Your task to perform on an android device: Search for sushi restaurants on Maps Image 0: 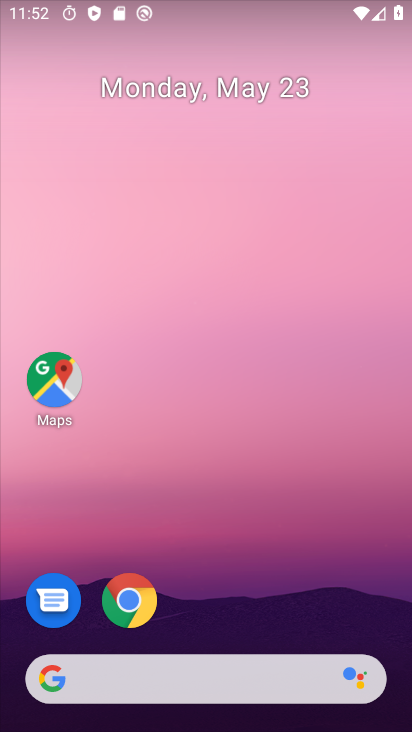
Step 0: click (42, 371)
Your task to perform on an android device: Search for sushi restaurants on Maps Image 1: 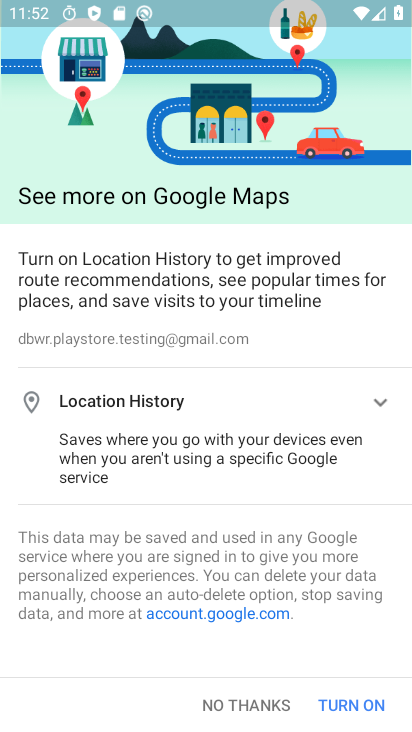
Step 1: click (208, 711)
Your task to perform on an android device: Search for sushi restaurants on Maps Image 2: 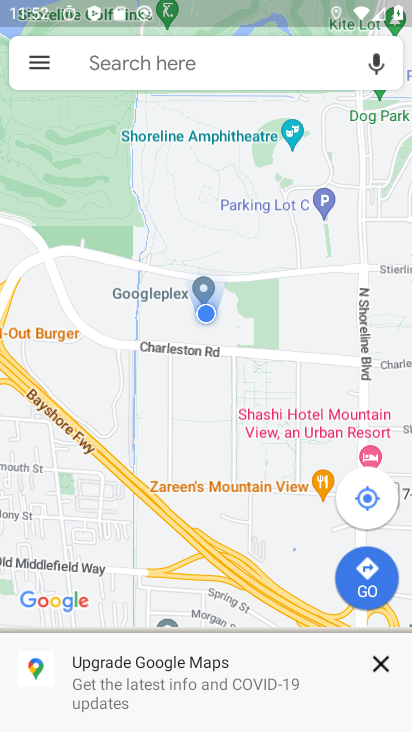
Step 2: click (178, 69)
Your task to perform on an android device: Search for sushi restaurants on Maps Image 3: 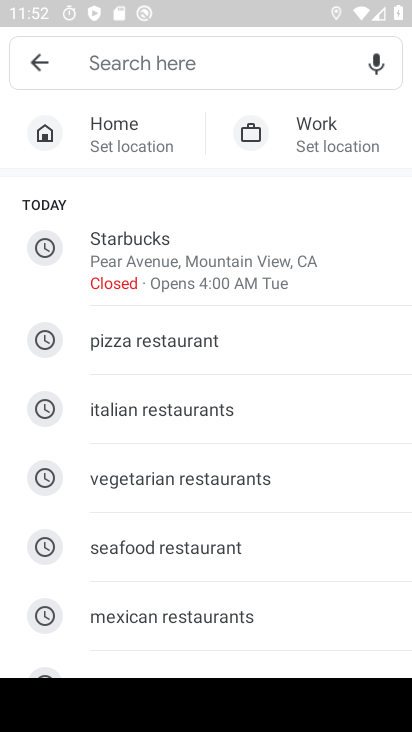
Step 3: type "sushi restaurants"
Your task to perform on an android device: Search for sushi restaurants on Maps Image 4: 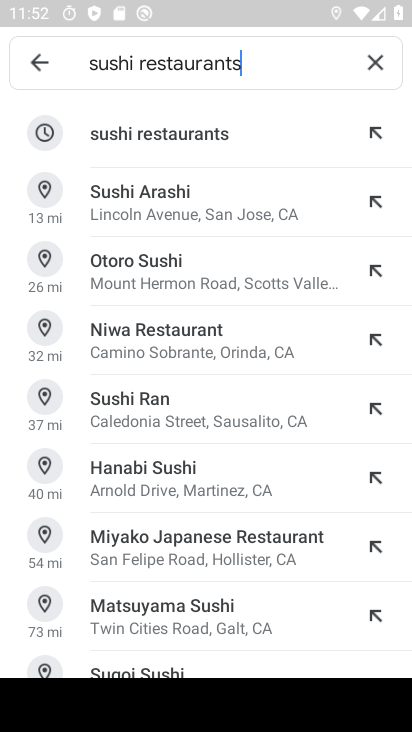
Step 4: click (208, 137)
Your task to perform on an android device: Search for sushi restaurants on Maps Image 5: 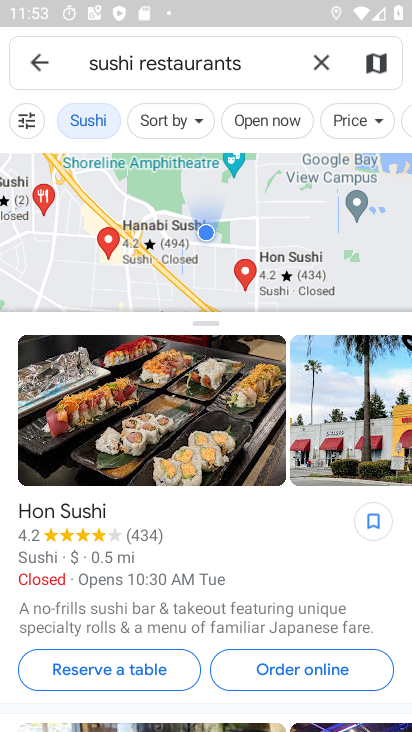
Step 5: task complete